Your task to perform on an android device: open sync settings in chrome Image 0: 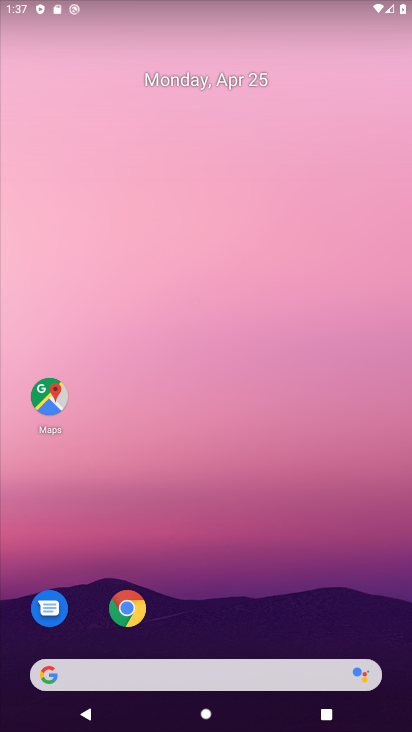
Step 0: drag from (363, 605) to (375, 128)
Your task to perform on an android device: open sync settings in chrome Image 1: 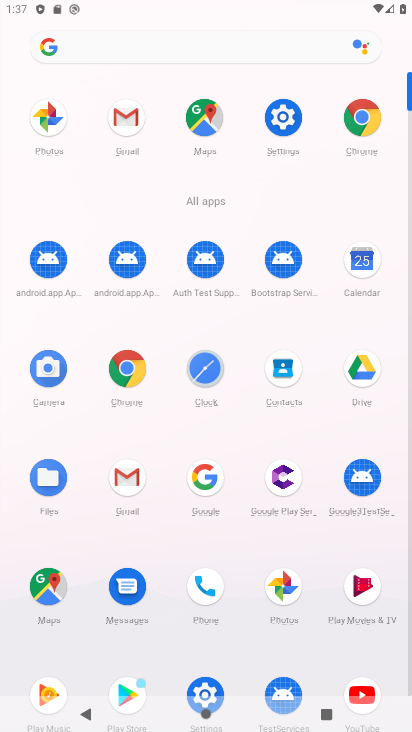
Step 1: click (353, 130)
Your task to perform on an android device: open sync settings in chrome Image 2: 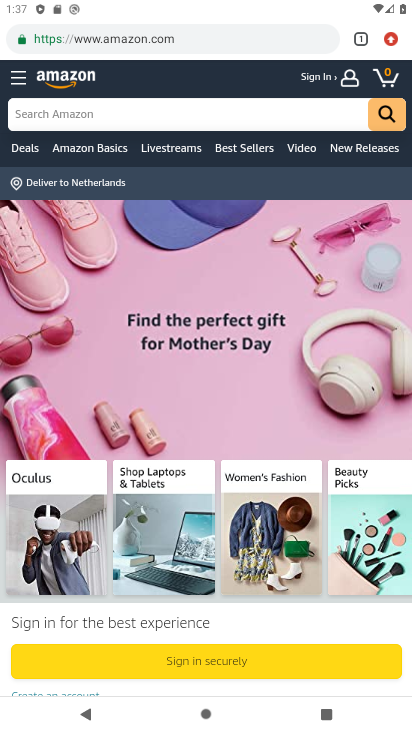
Step 2: click (389, 39)
Your task to perform on an android device: open sync settings in chrome Image 3: 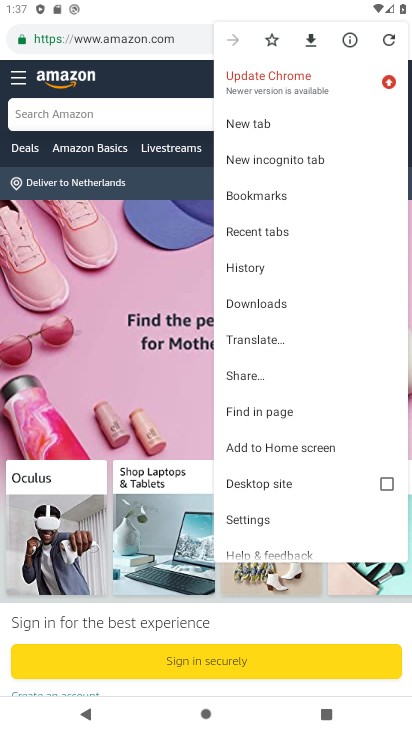
Step 3: click (262, 520)
Your task to perform on an android device: open sync settings in chrome Image 4: 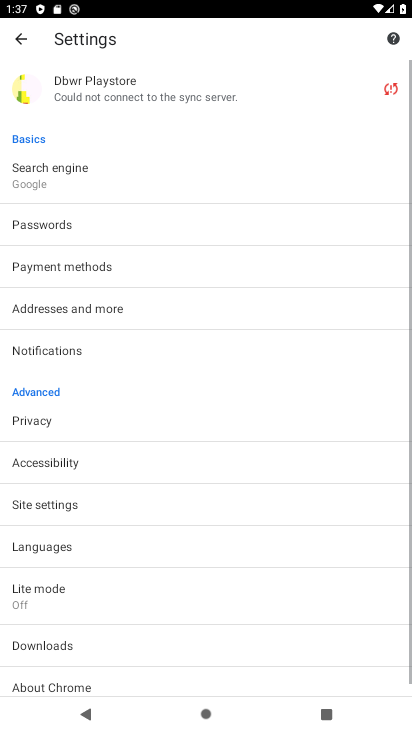
Step 4: drag from (262, 563) to (293, 447)
Your task to perform on an android device: open sync settings in chrome Image 5: 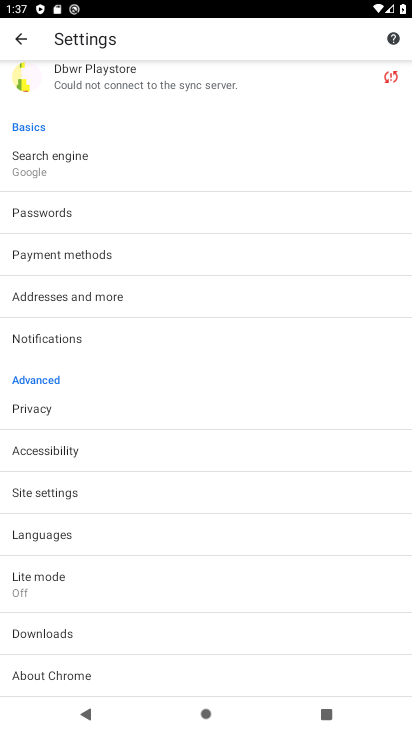
Step 5: drag from (300, 593) to (322, 405)
Your task to perform on an android device: open sync settings in chrome Image 6: 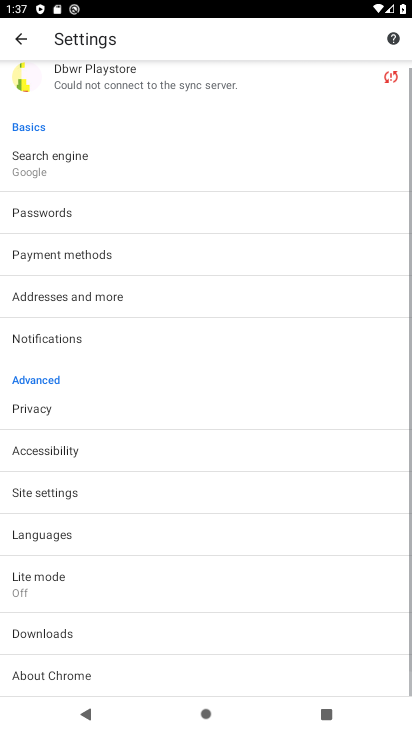
Step 6: drag from (324, 336) to (326, 433)
Your task to perform on an android device: open sync settings in chrome Image 7: 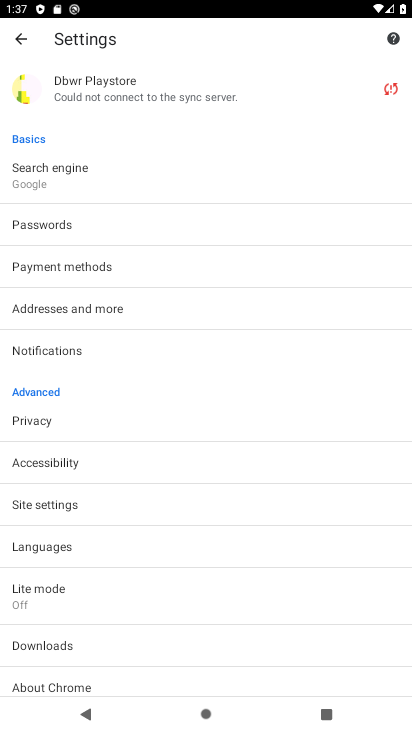
Step 7: drag from (323, 250) to (277, 490)
Your task to perform on an android device: open sync settings in chrome Image 8: 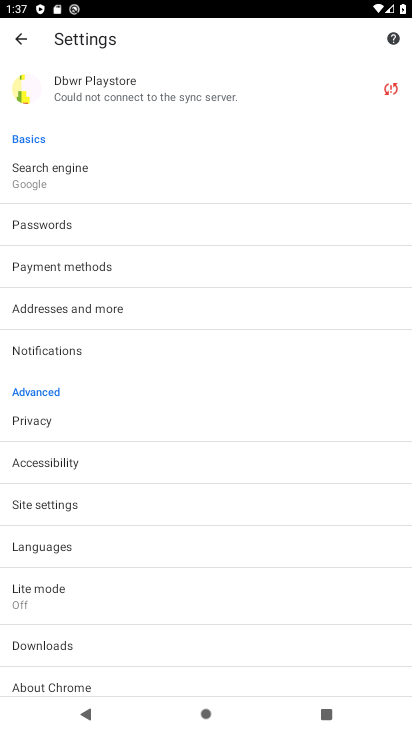
Step 8: click (208, 507)
Your task to perform on an android device: open sync settings in chrome Image 9: 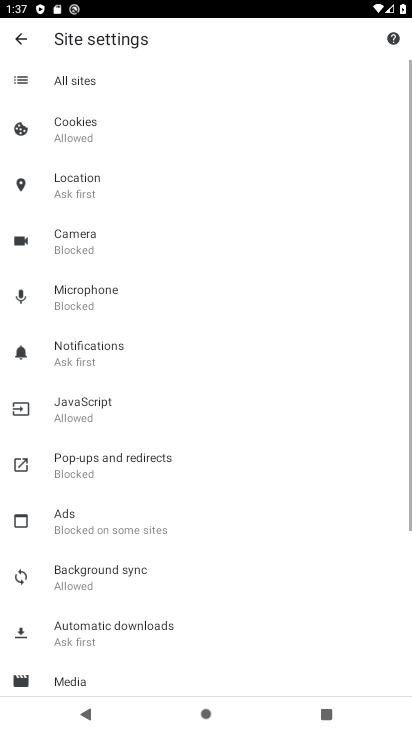
Step 9: drag from (258, 587) to (277, 472)
Your task to perform on an android device: open sync settings in chrome Image 10: 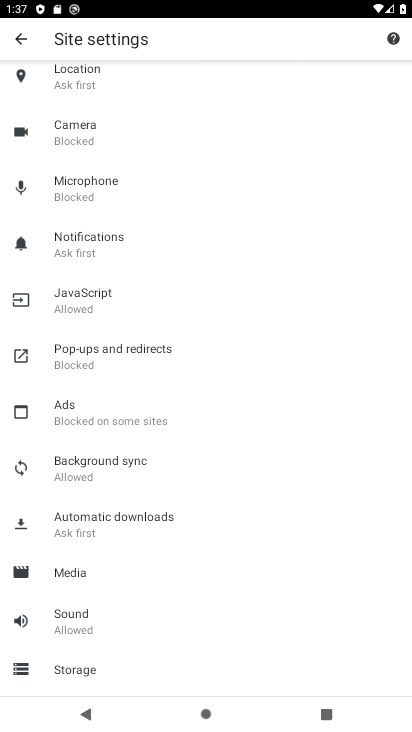
Step 10: drag from (282, 615) to (292, 510)
Your task to perform on an android device: open sync settings in chrome Image 11: 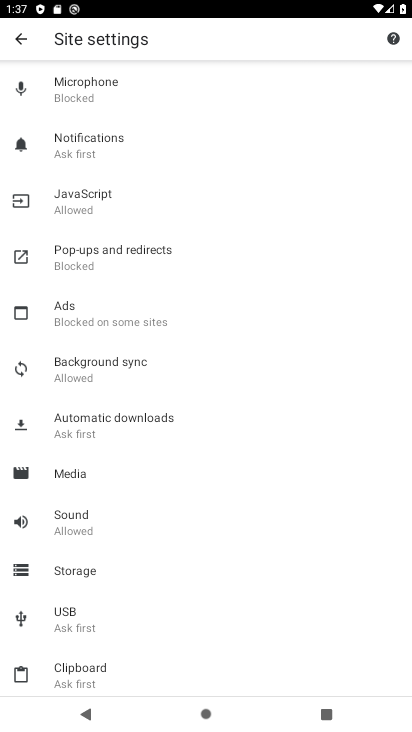
Step 11: drag from (285, 619) to (307, 489)
Your task to perform on an android device: open sync settings in chrome Image 12: 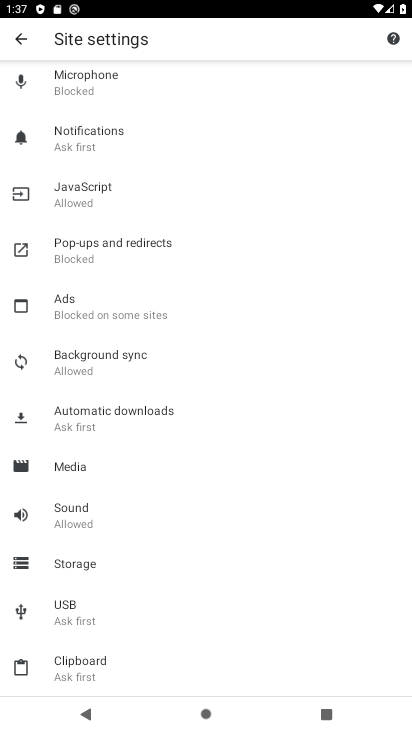
Step 12: drag from (294, 270) to (288, 406)
Your task to perform on an android device: open sync settings in chrome Image 13: 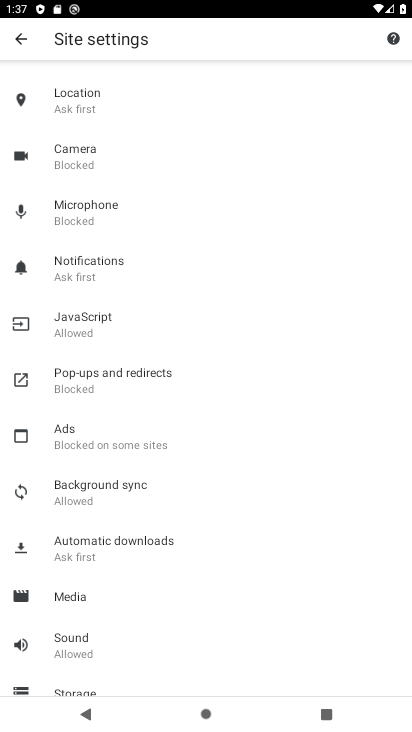
Step 13: drag from (292, 243) to (283, 398)
Your task to perform on an android device: open sync settings in chrome Image 14: 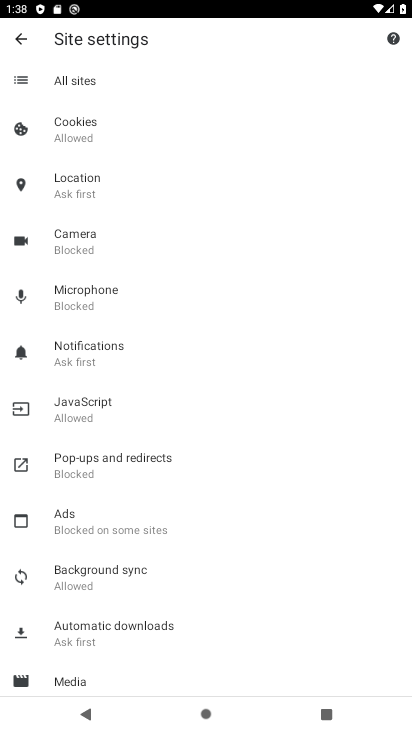
Step 14: drag from (292, 214) to (279, 393)
Your task to perform on an android device: open sync settings in chrome Image 15: 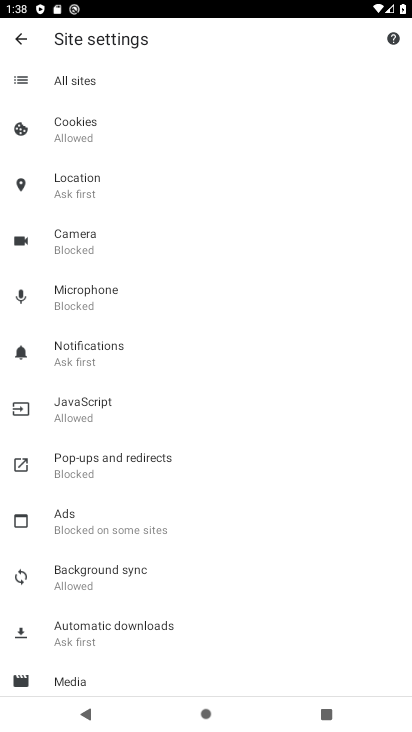
Step 15: click (127, 566)
Your task to perform on an android device: open sync settings in chrome Image 16: 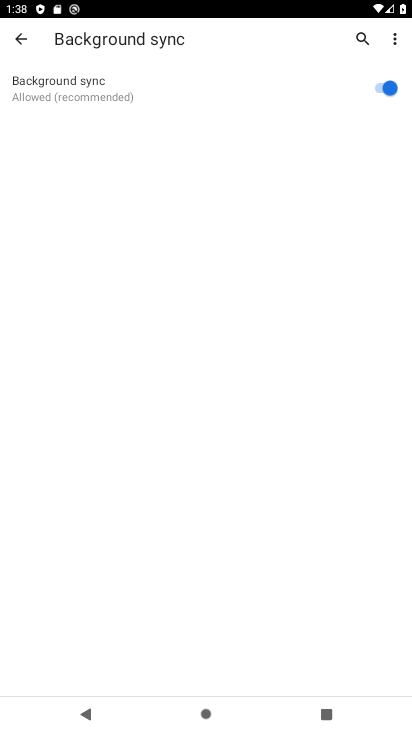
Step 16: task complete